Your task to perform on an android device: turn on airplane mode Image 0: 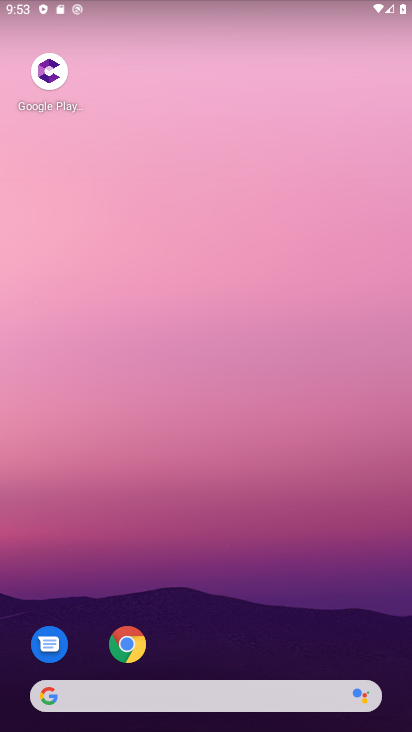
Step 0: drag from (222, 662) to (360, 164)
Your task to perform on an android device: turn on airplane mode Image 1: 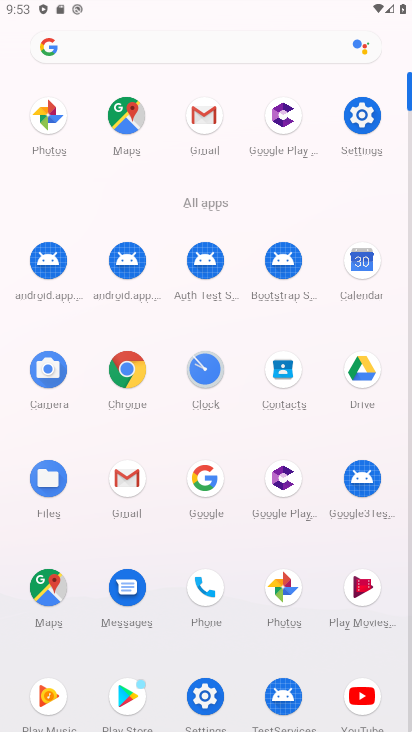
Step 1: press home button
Your task to perform on an android device: turn on airplane mode Image 2: 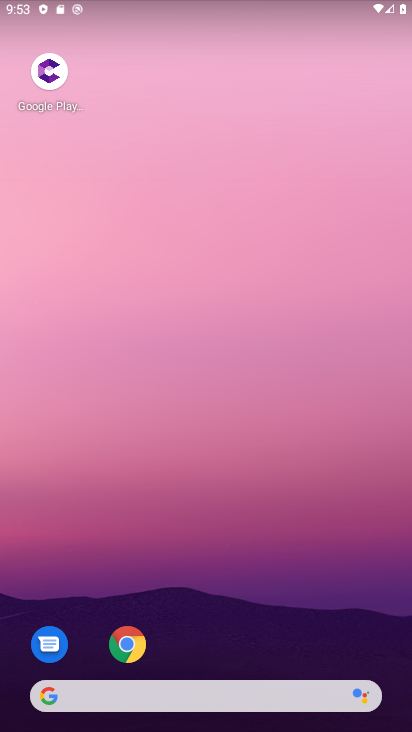
Step 2: drag from (183, 661) to (241, 178)
Your task to perform on an android device: turn on airplane mode Image 3: 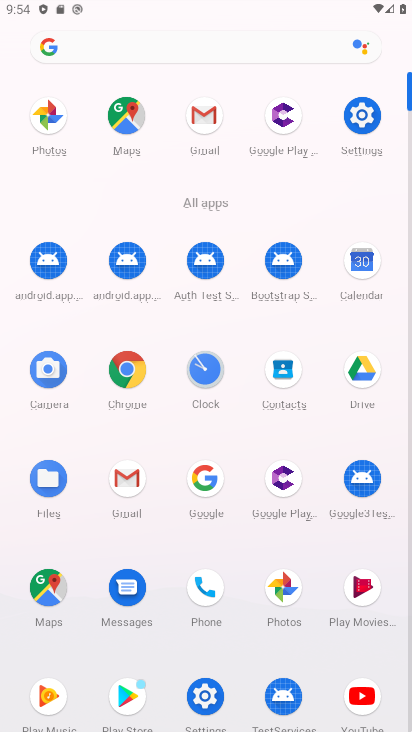
Step 3: click (365, 114)
Your task to perform on an android device: turn on airplane mode Image 4: 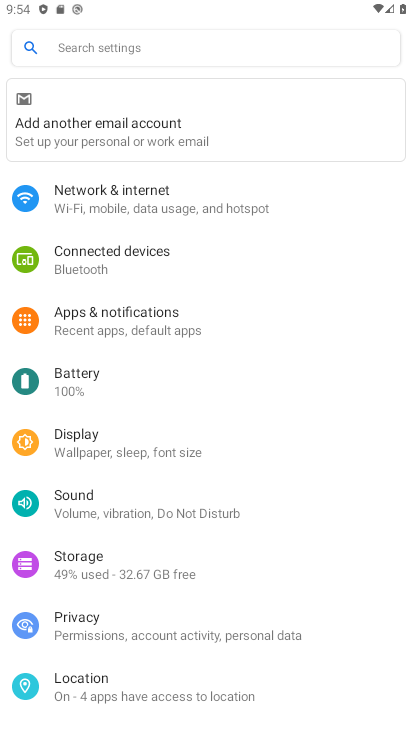
Step 4: click (161, 207)
Your task to perform on an android device: turn on airplane mode Image 5: 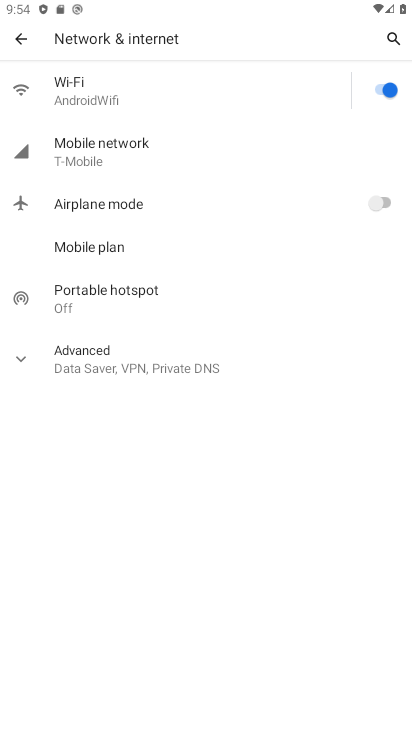
Step 5: click (382, 195)
Your task to perform on an android device: turn on airplane mode Image 6: 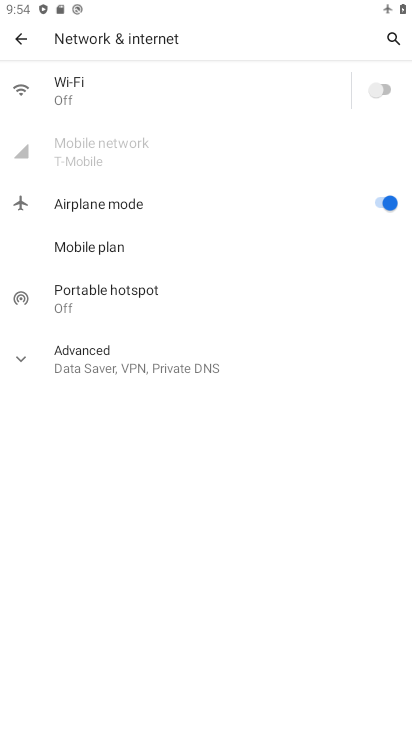
Step 6: task complete